Your task to perform on an android device: turn on the 24-hour format for clock Image 0: 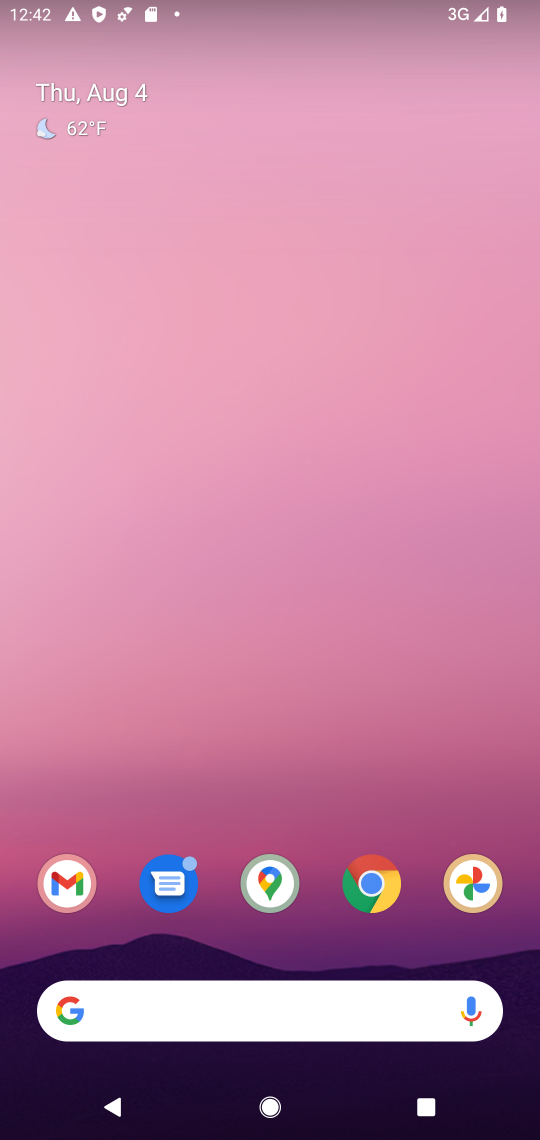
Step 0: drag from (244, 969) to (397, 291)
Your task to perform on an android device: turn on the 24-hour format for clock Image 1: 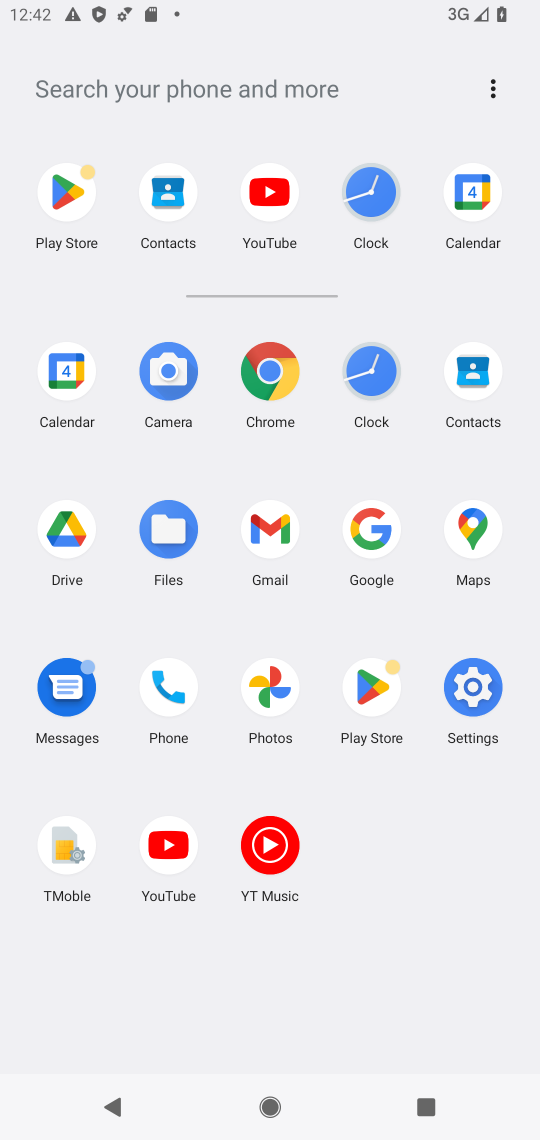
Step 1: click (386, 351)
Your task to perform on an android device: turn on the 24-hour format for clock Image 2: 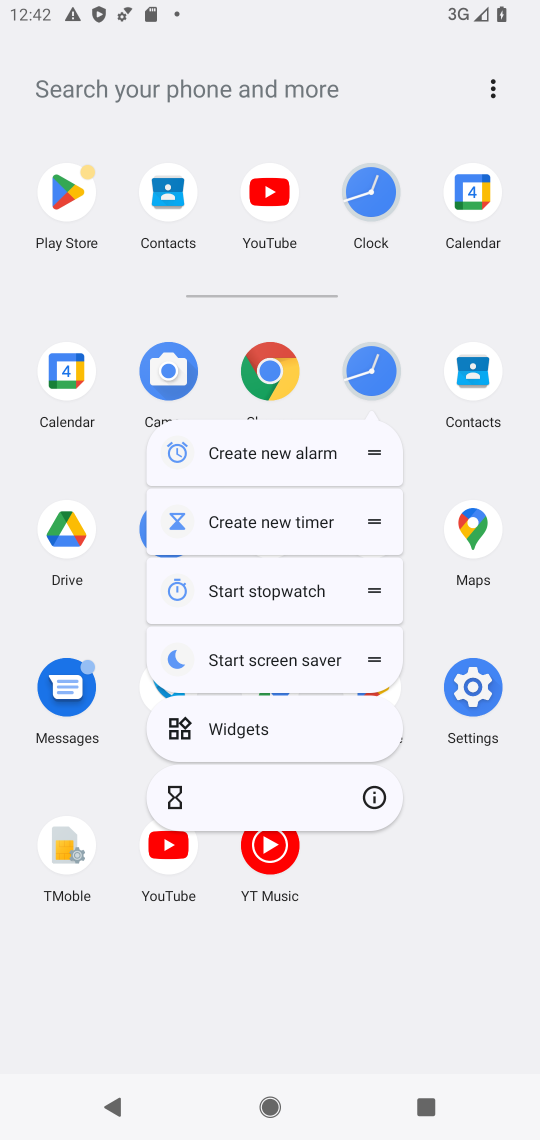
Step 2: click (373, 797)
Your task to perform on an android device: turn on the 24-hour format for clock Image 3: 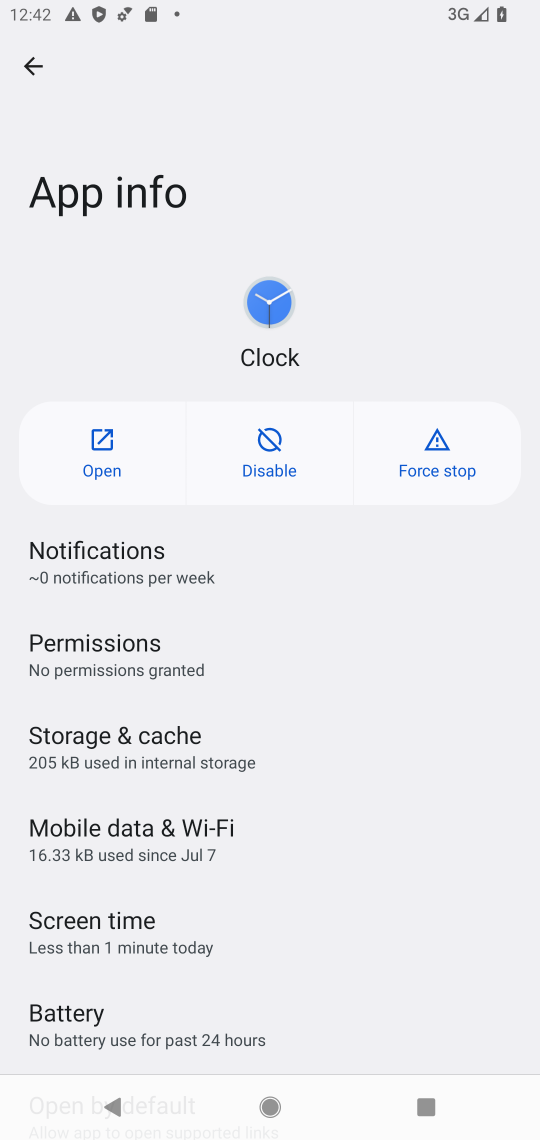
Step 3: click (114, 431)
Your task to perform on an android device: turn on the 24-hour format for clock Image 4: 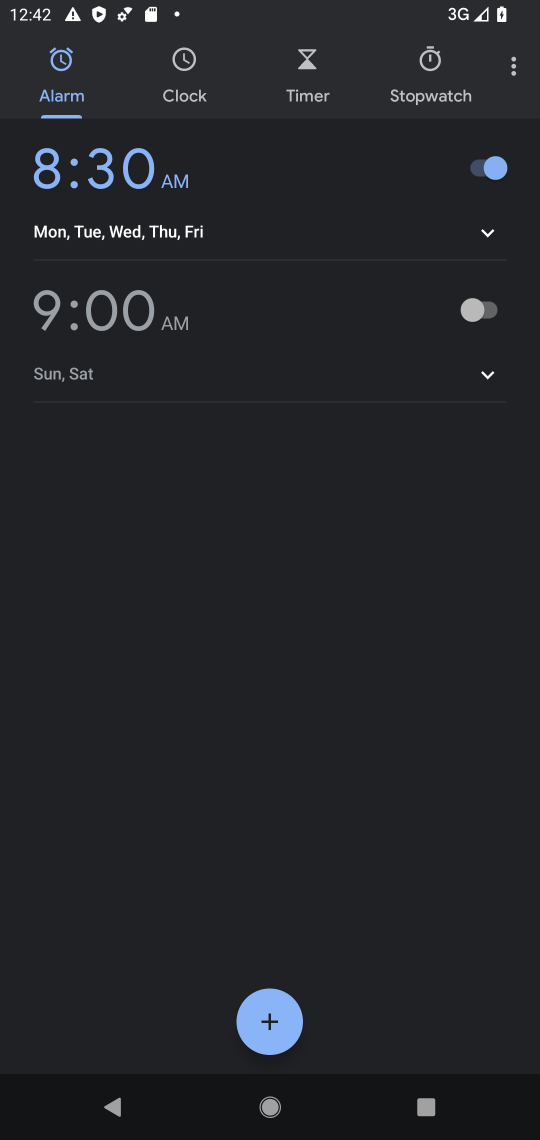
Step 4: drag from (516, 77) to (378, 114)
Your task to perform on an android device: turn on the 24-hour format for clock Image 5: 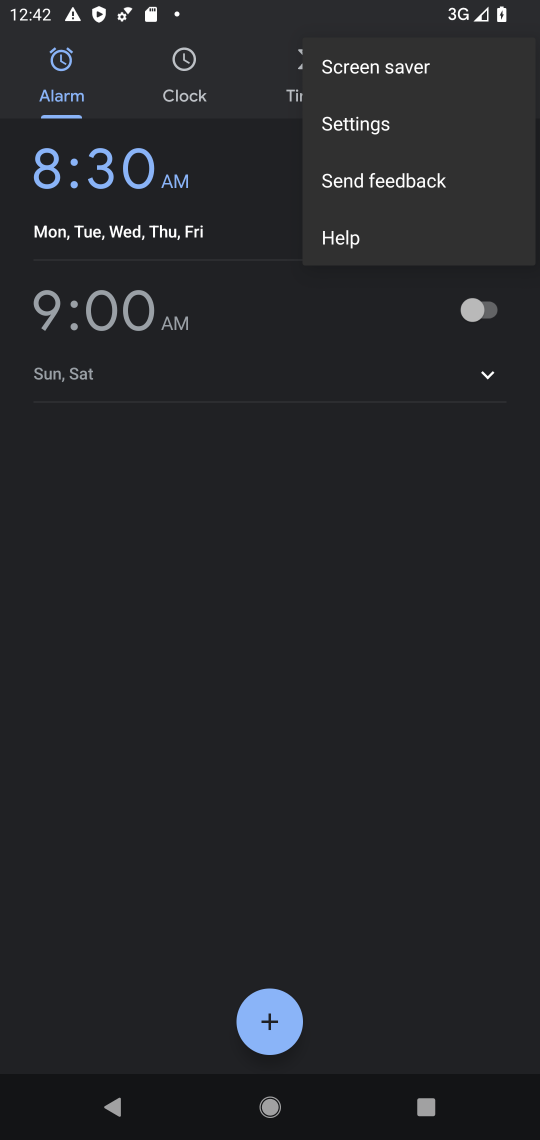
Step 5: click (377, 116)
Your task to perform on an android device: turn on the 24-hour format for clock Image 6: 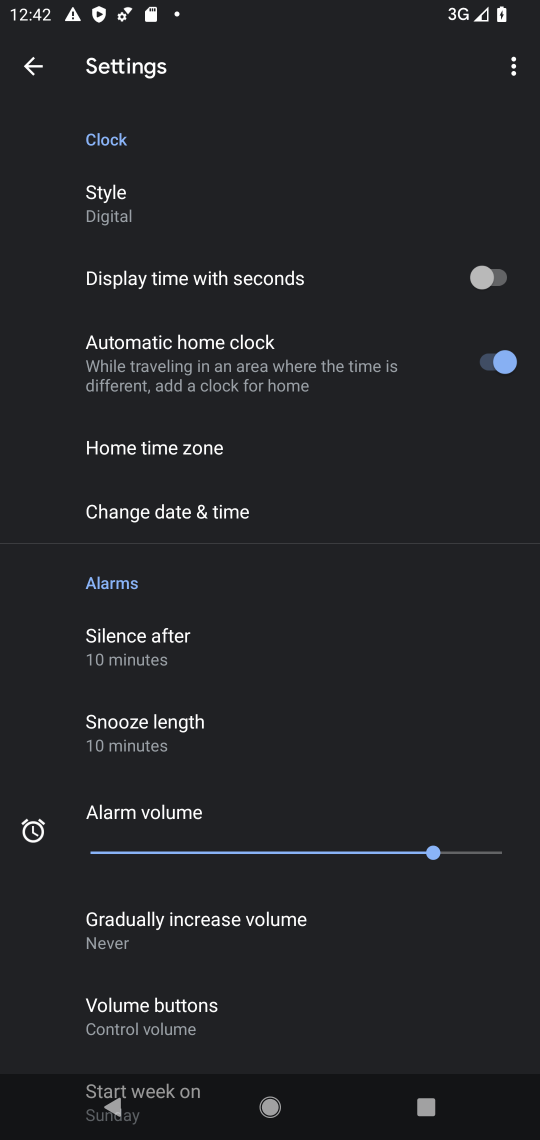
Step 6: drag from (297, 378) to (281, 918)
Your task to perform on an android device: turn on the 24-hour format for clock Image 7: 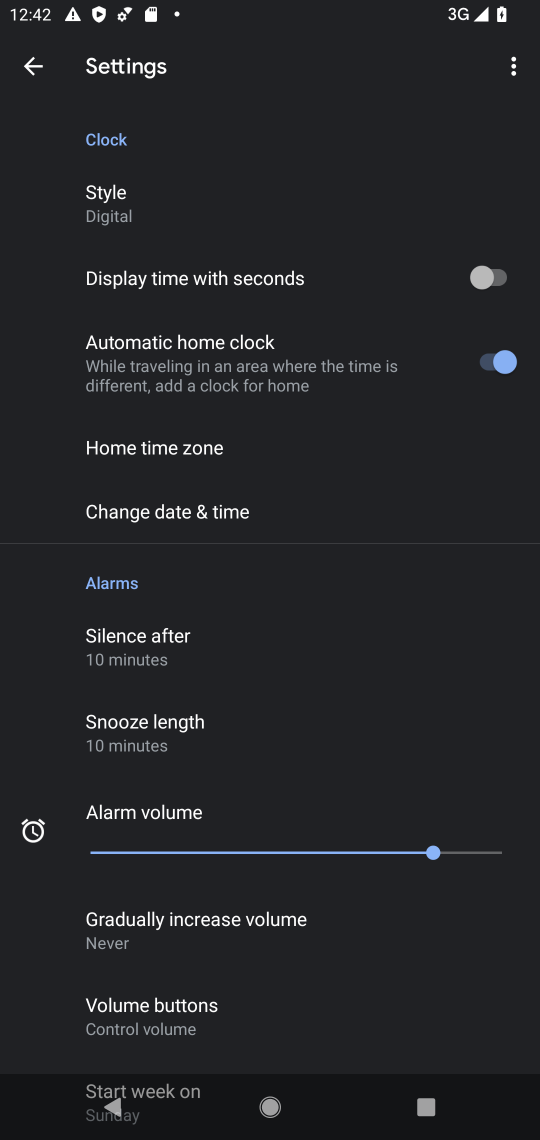
Step 7: drag from (273, 589) to (338, 1037)
Your task to perform on an android device: turn on the 24-hour format for clock Image 8: 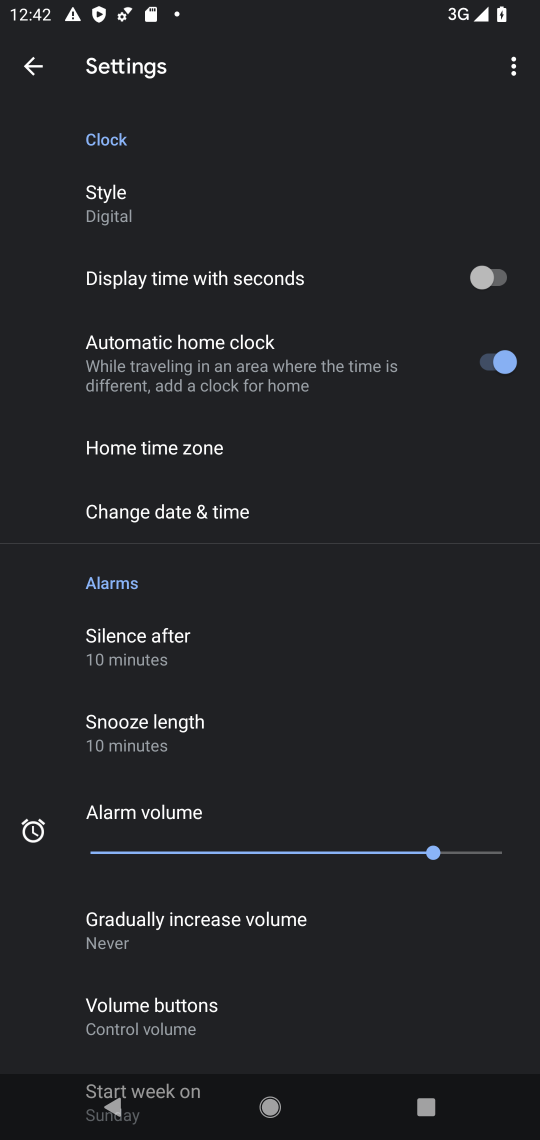
Step 8: click (250, 515)
Your task to perform on an android device: turn on the 24-hour format for clock Image 9: 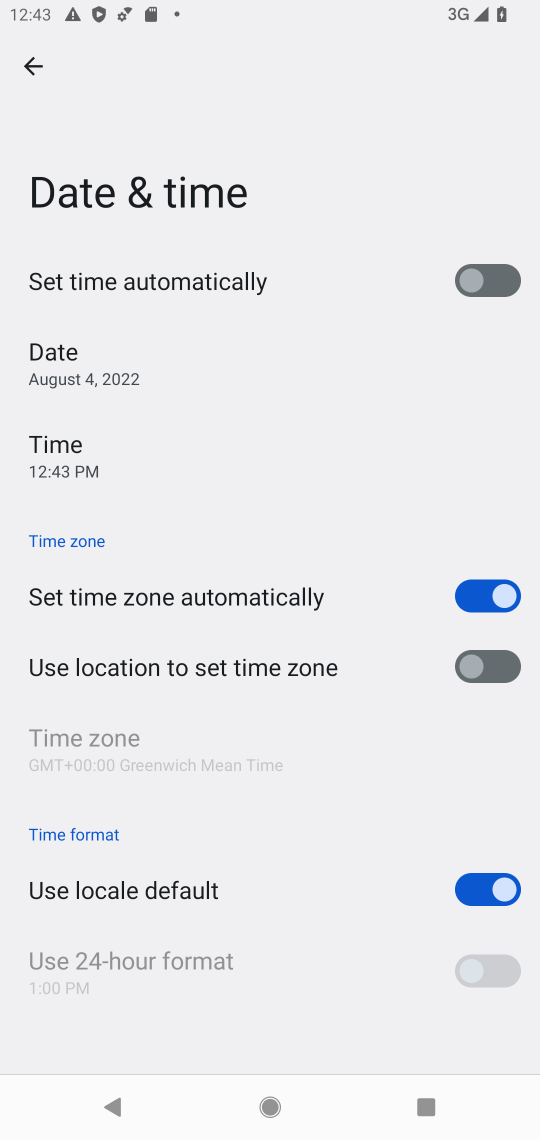
Step 9: drag from (338, 751) to (295, 322)
Your task to perform on an android device: turn on the 24-hour format for clock Image 10: 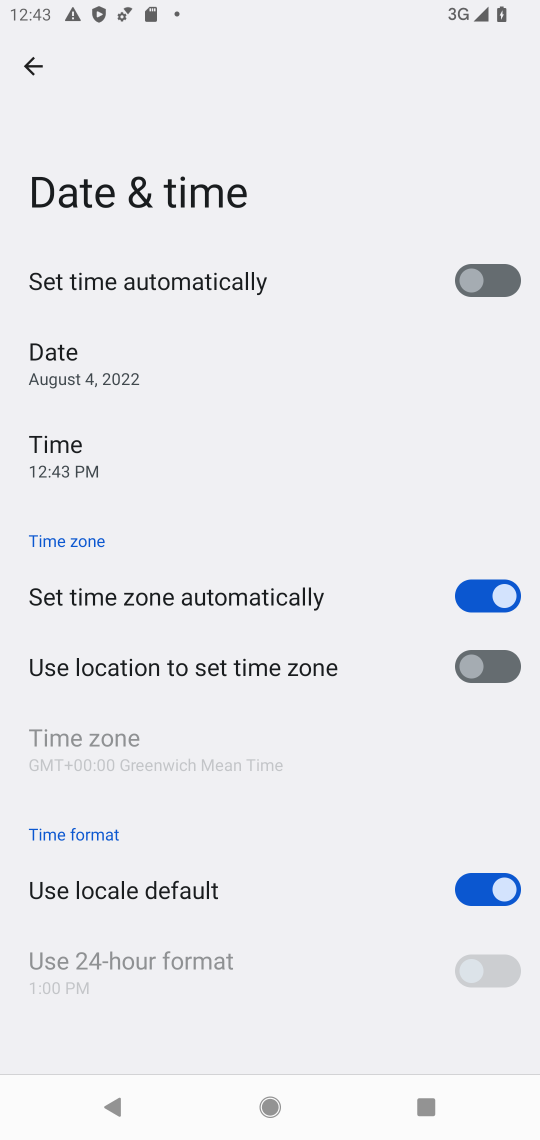
Step 10: click (499, 889)
Your task to perform on an android device: turn on the 24-hour format for clock Image 11: 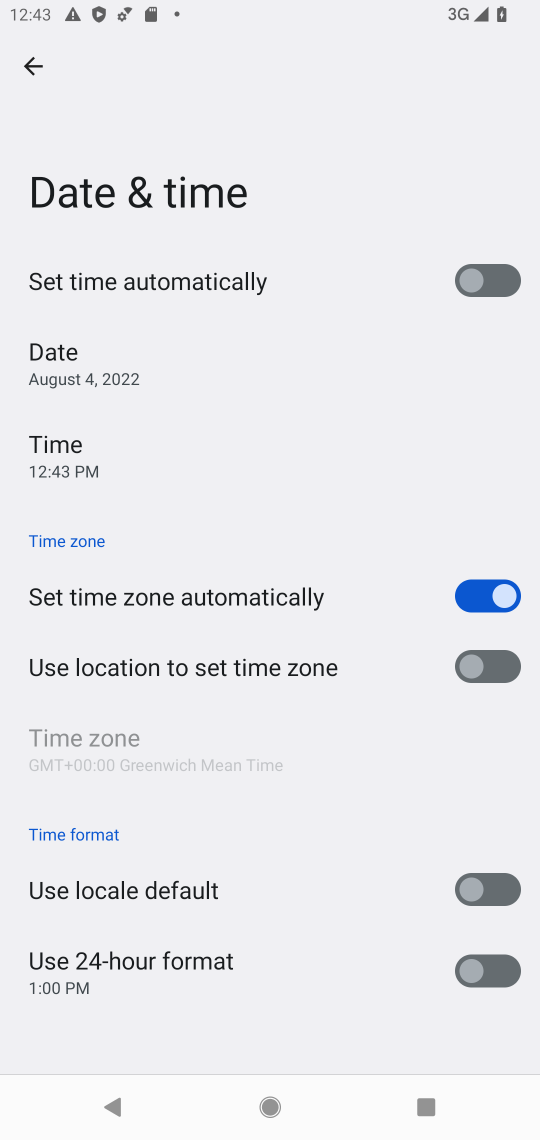
Step 11: click (488, 964)
Your task to perform on an android device: turn on the 24-hour format for clock Image 12: 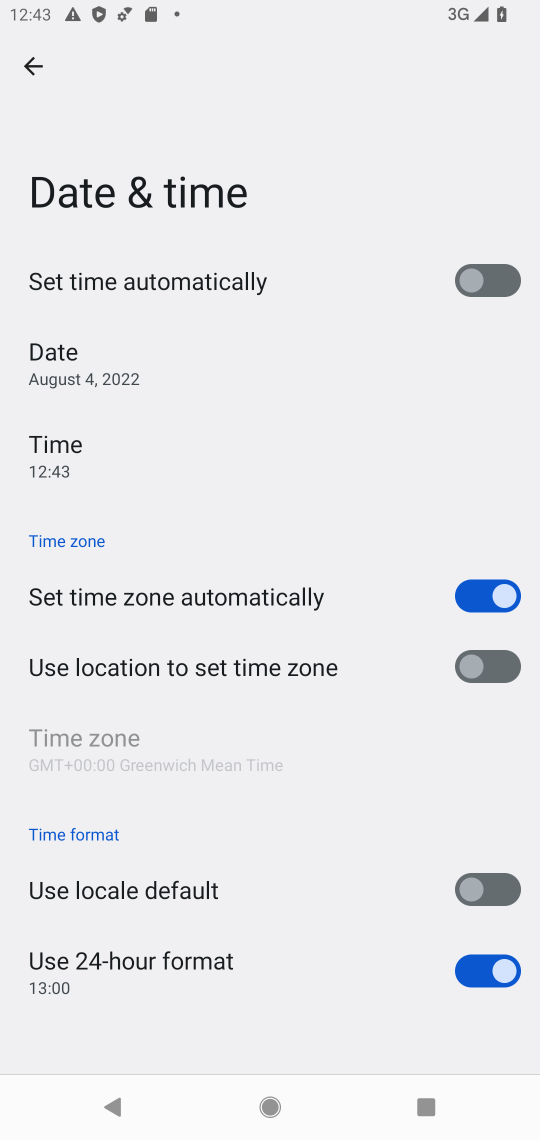
Step 12: task complete